Your task to perform on an android device: allow notifications from all sites in the chrome app Image 0: 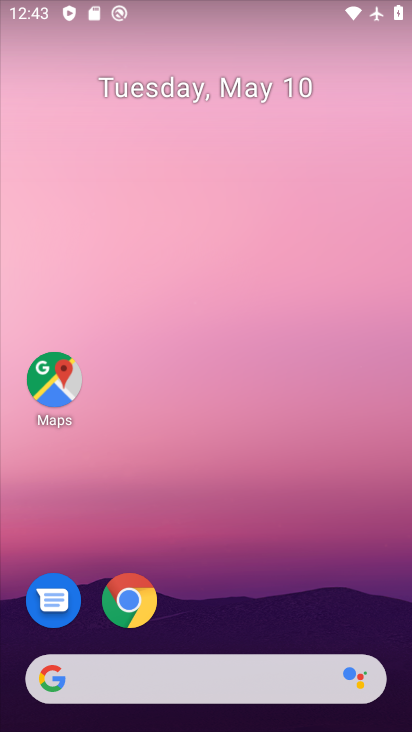
Step 0: drag from (263, 561) to (256, 119)
Your task to perform on an android device: allow notifications from all sites in the chrome app Image 1: 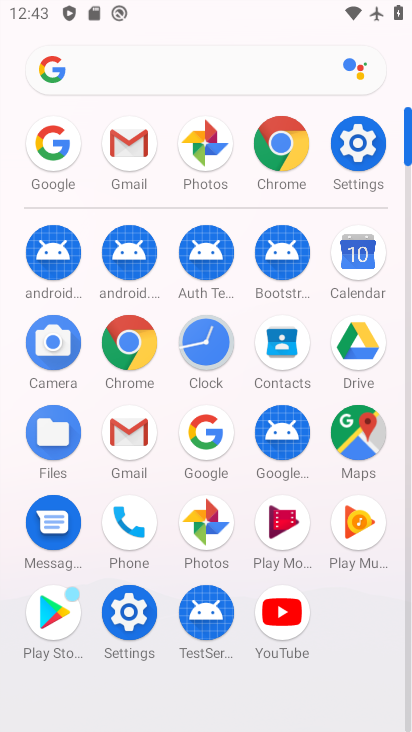
Step 1: click (276, 148)
Your task to perform on an android device: allow notifications from all sites in the chrome app Image 2: 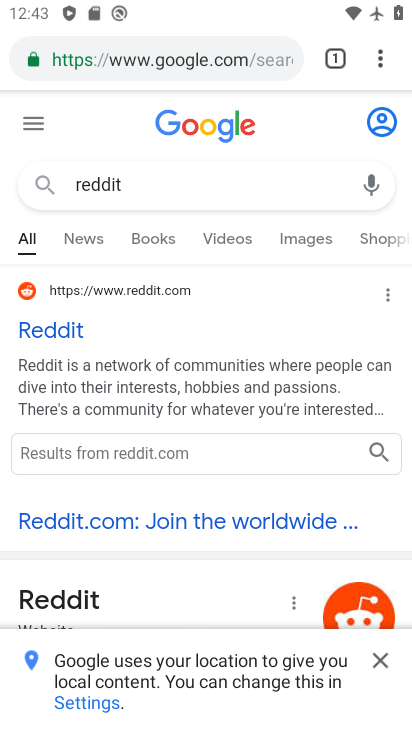
Step 2: click (378, 71)
Your task to perform on an android device: allow notifications from all sites in the chrome app Image 3: 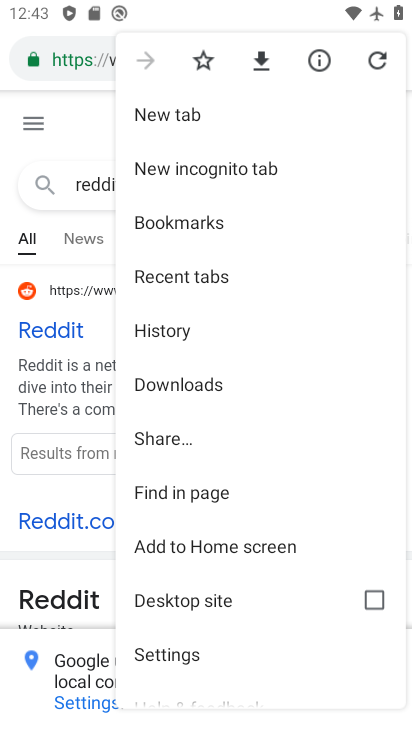
Step 3: click (177, 671)
Your task to perform on an android device: allow notifications from all sites in the chrome app Image 4: 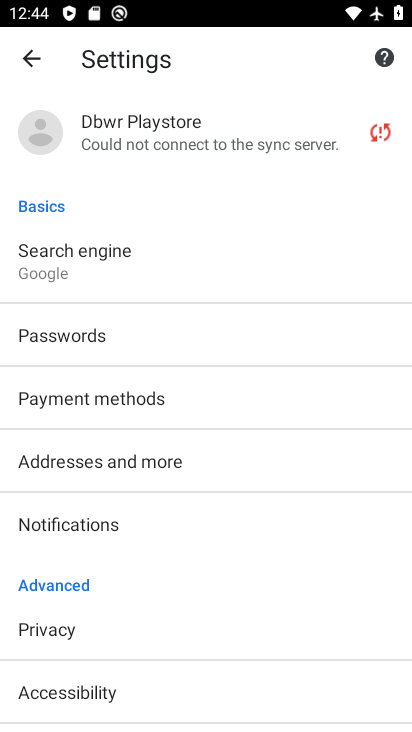
Step 4: drag from (159, 616) to (166, 279)
Your task to perform on an android device: allow notifications from all sites in the chrome app Image 5: 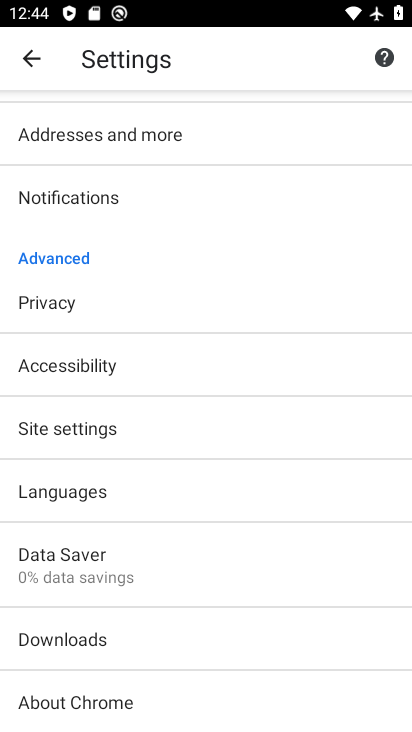
Step 5: click (91, 189)
Your task to perform on an android device: allow notifications from all sites in the chrome app Image 6: 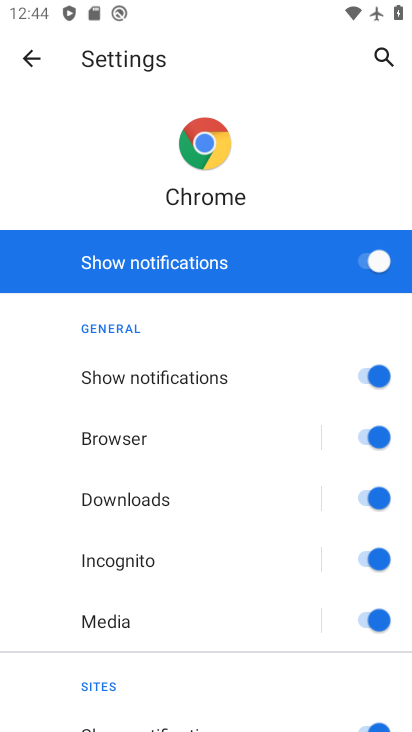
Step 6: drag from (218, 577) to (158, 5)
Your task to perform on an android device: allow notifications from all sites in the chrome app Image 7: 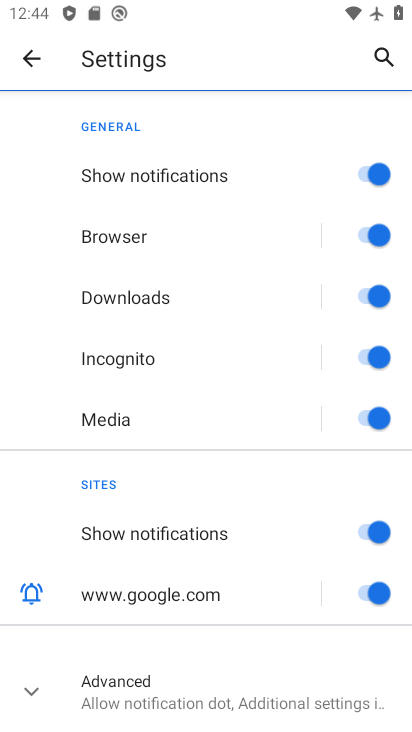
Step 7: click (85, 402)
Your task to perform on an android device: allow notifications from all sites in the chrome app Image 8: 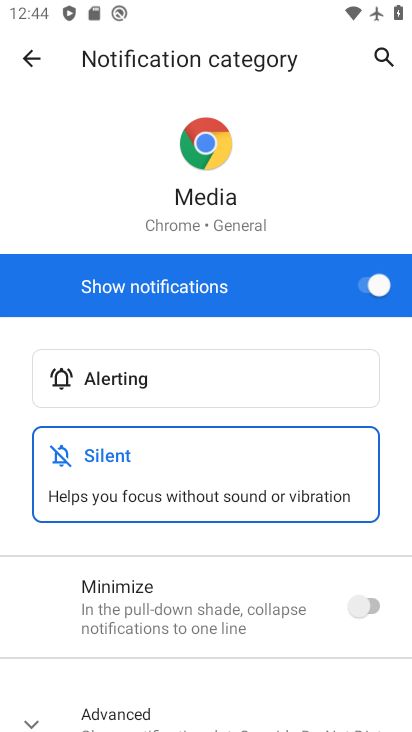
Step 8: task complete